Your task to perform on an android device: turn on airplane mode Image 0: 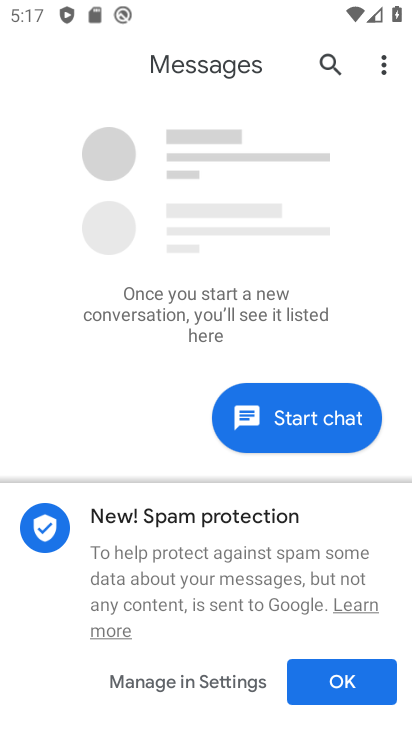
Step 0: drag from (267, 13) to (256, 714)
Your task to perform on an android device: turn on airplane mode Image 1: 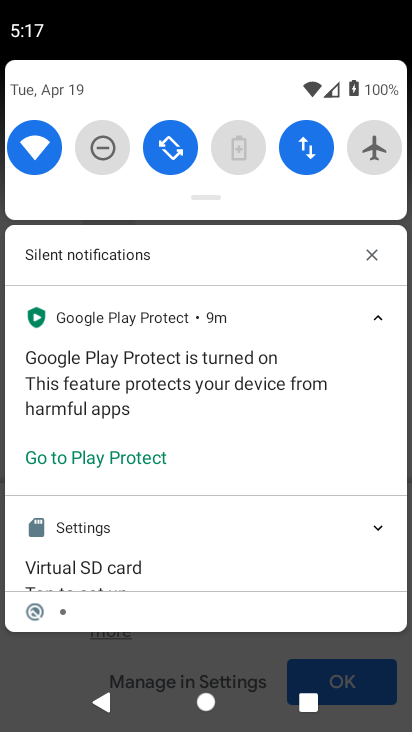
Step 1: click (375, 149)
Your task to perform on an android device: turn on airplane mode Image 2: 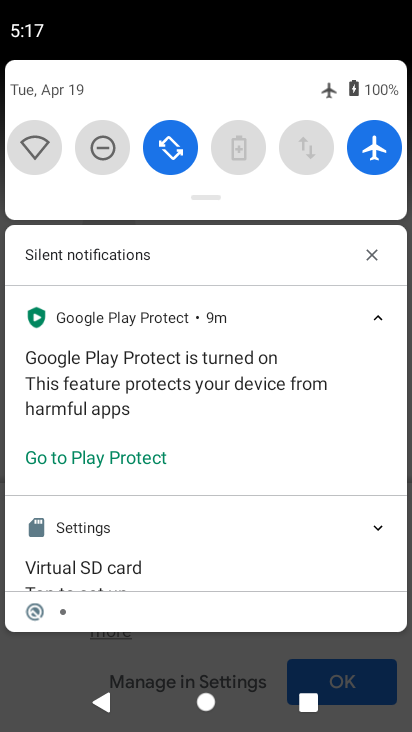
Step 2: task complete